Your task to perform on an android device: Go to Google Image 0: 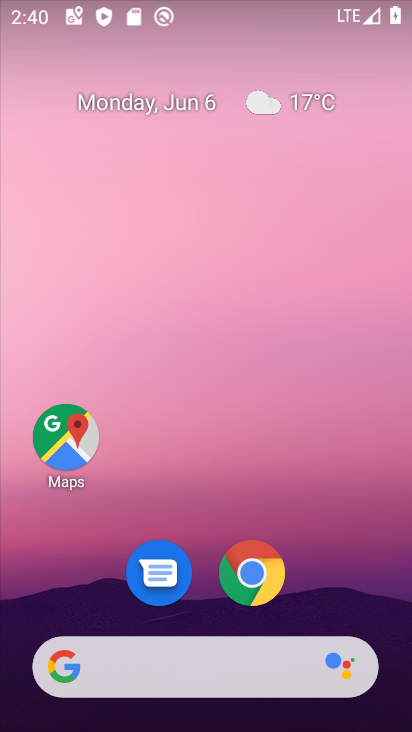
Step 0: drag from (363, 579) to (368, 140)
Your task to perform on an android device: Go to Google Image 1: 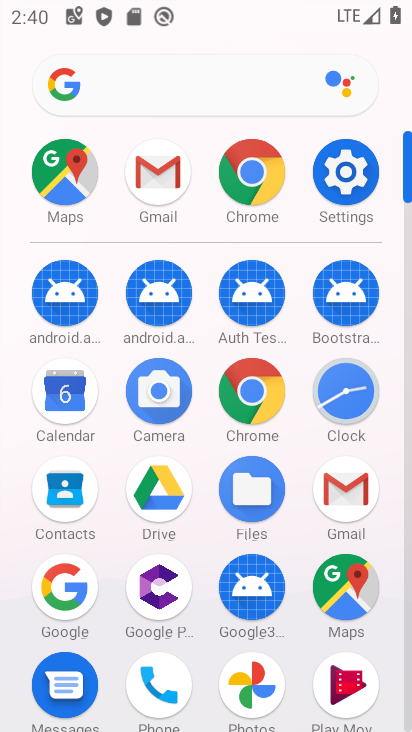
Step 1: click (53, 602)
Your task to perform on an android device: Go to Google Image 2: 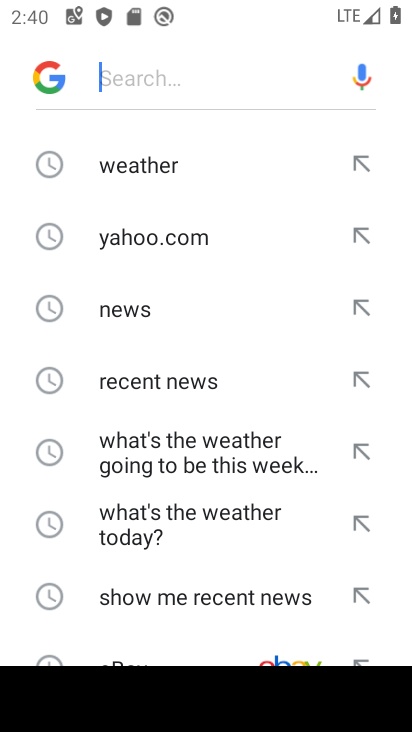
Step 2: task complete